Your task to perform on an android device: Go to accessibility settings Image 0: 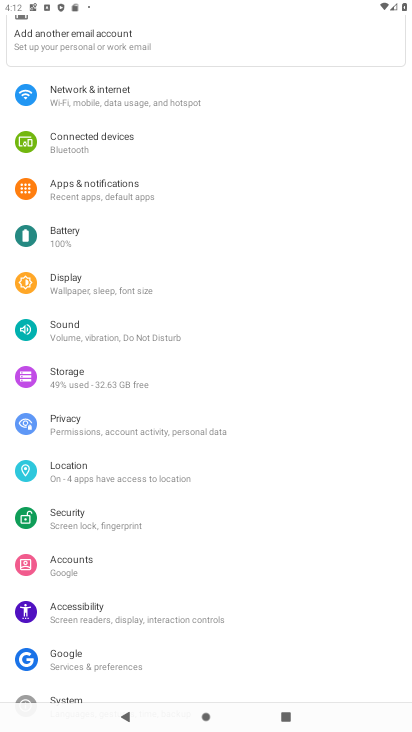
Step 0: click (93, 608)
Your task to perform on an android device: Go to accessibility settings Image 1: 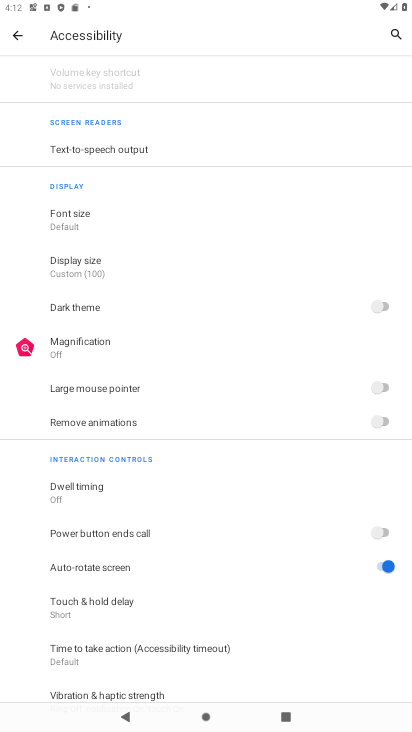
Step 1: task complete